Your task to perform on an android device: toggle location history Image 0: 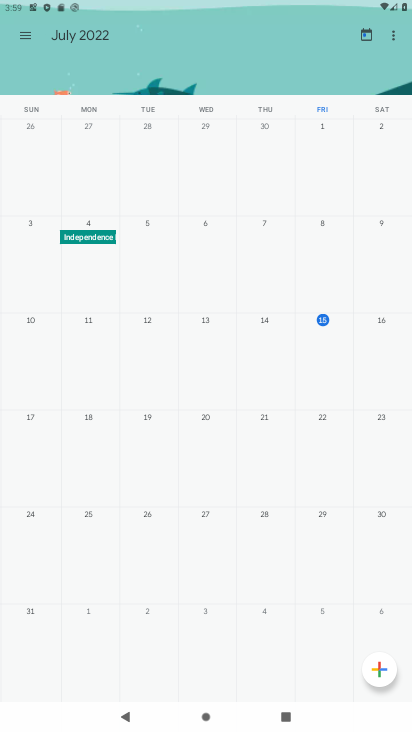
Step 0: press home button
Your task to perform on an android device: toggle location history Image 1: 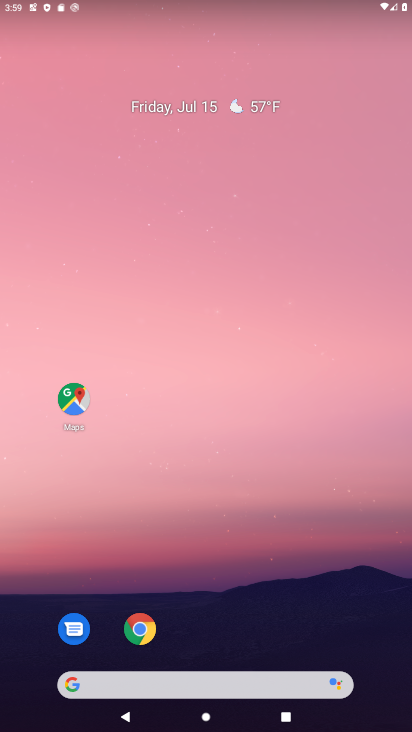
Step 1: drag from (243, 549) to (278, 224)
Your task to perform on an android device: toggle location history Image 2: 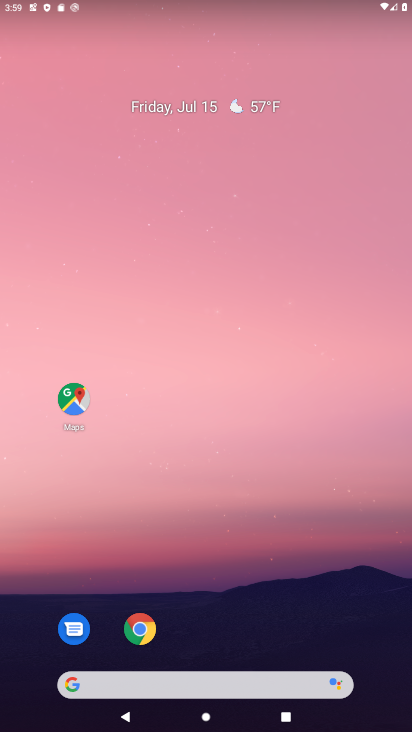
Step 2: click (334, 35)
Your task to perform on an android device: toggle location history Image 3: 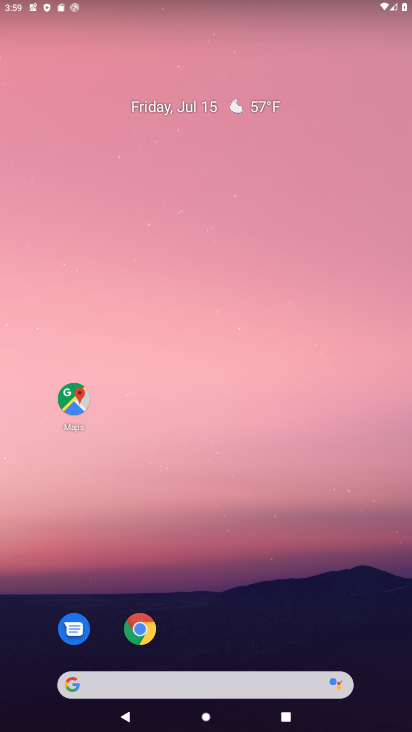
Step 3: drag from (263, 613) to (212, 24)
Your task to perform on an android device: toggle location history Image 4: 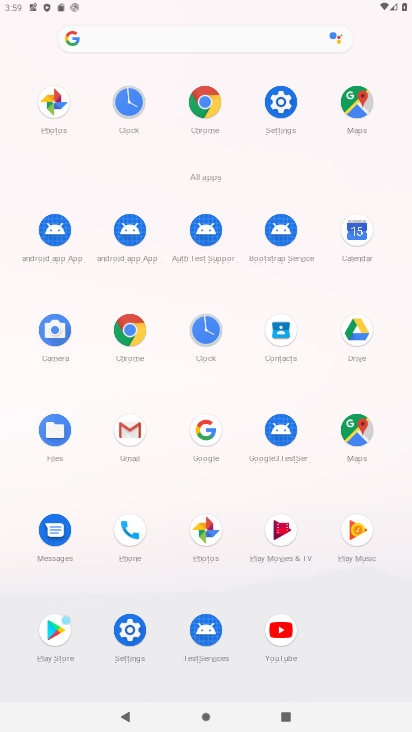
Step 4: click (273, 100)
Your task to perform on an android device: toggle location history Image 5: 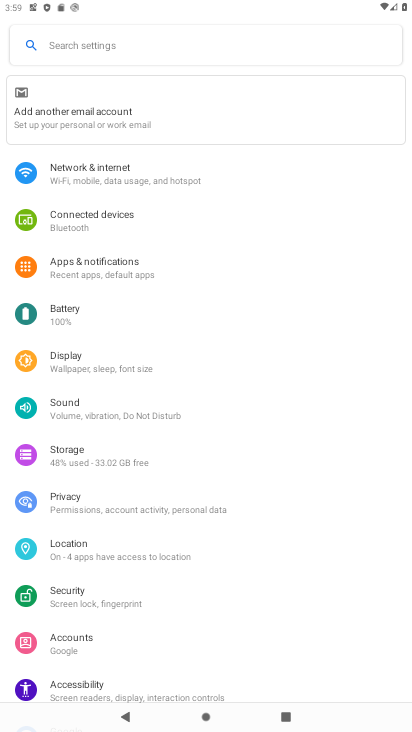
Step 5: click (57, 538)
Your task to perform on an android device: toggle location history Image 6: 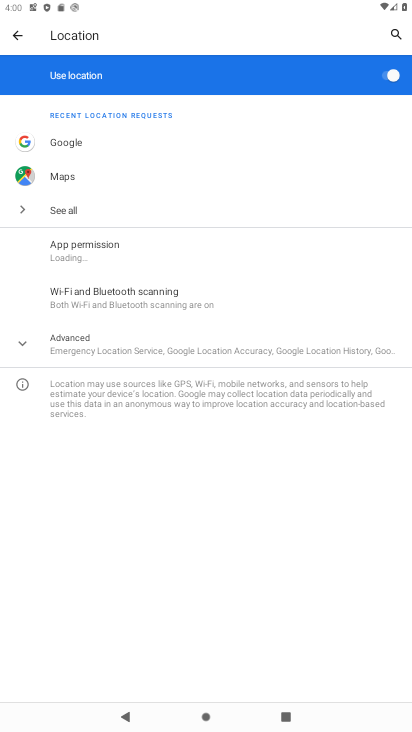
Step 6: click (21, 344)
Your task to perform on an android device: toggle location history Image 7: 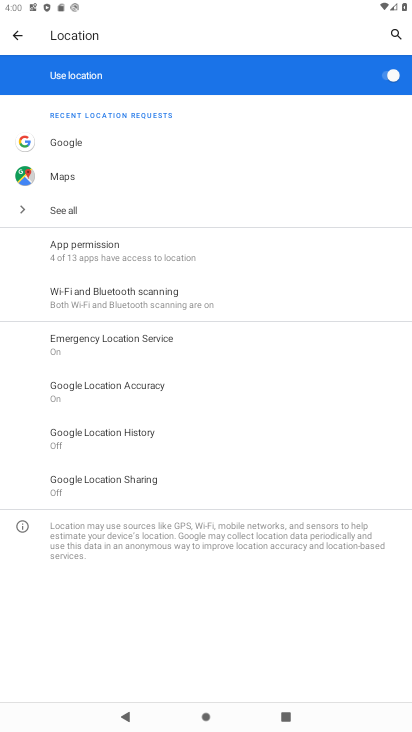
Step 7: click (130, 437)
Your task to perform on an android device: toggle location history Image 8: 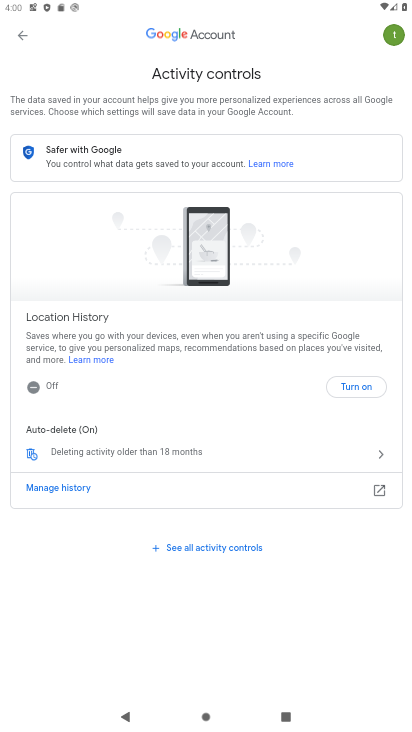
Step 8: click (344, 389)
Your task to perform on an android device: toggle location history Image 9: 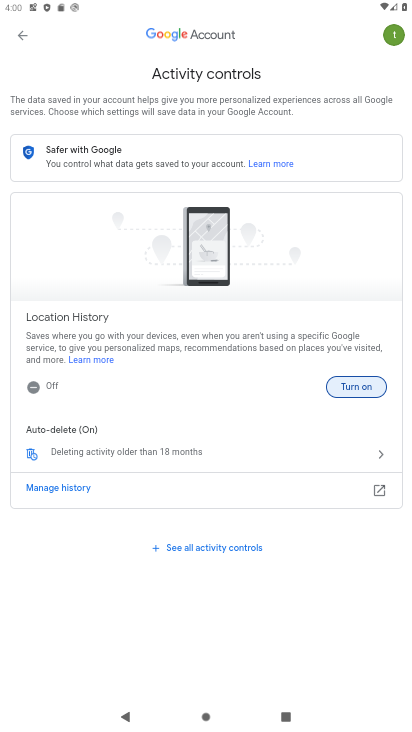
Step 9: click (360, 381)
Your task to perform on an android device: toggle location history Image 10: 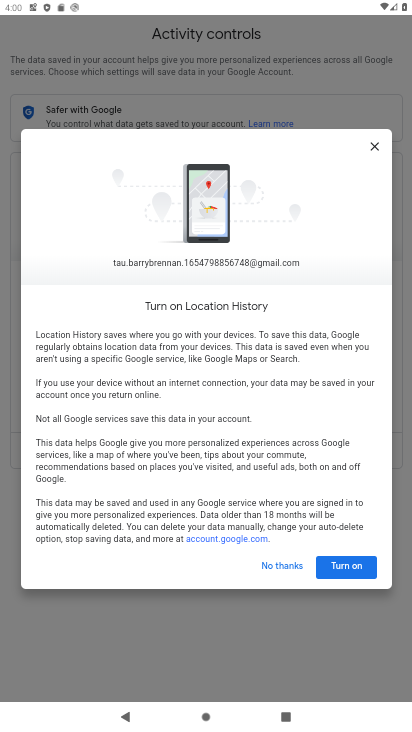
Step 10: click (345, 571)
Your task to perform on an android device: toggle location history Image 11: 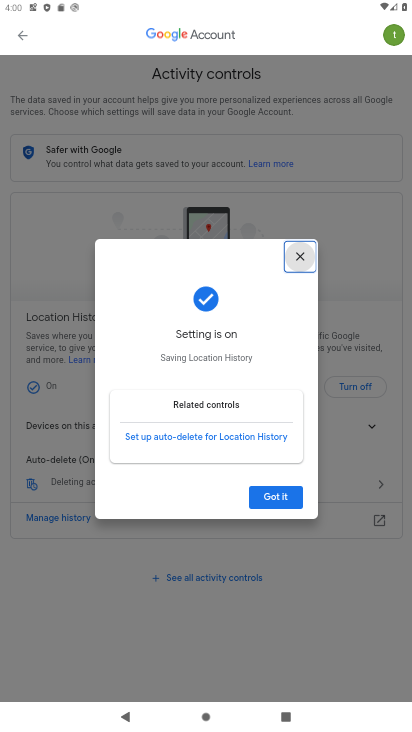
Step 11: click (275, 497)
Your task to perform on an android device: toggle location history Image 12: 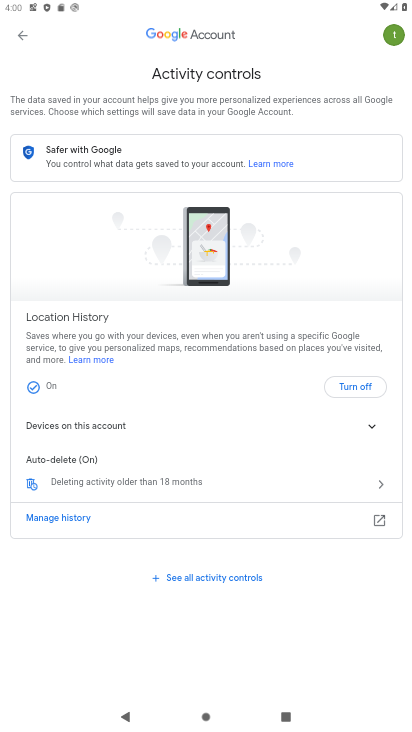
Step 12: task complete